Your task to perform on an android device: snooze an email in the gmail app Image 0: 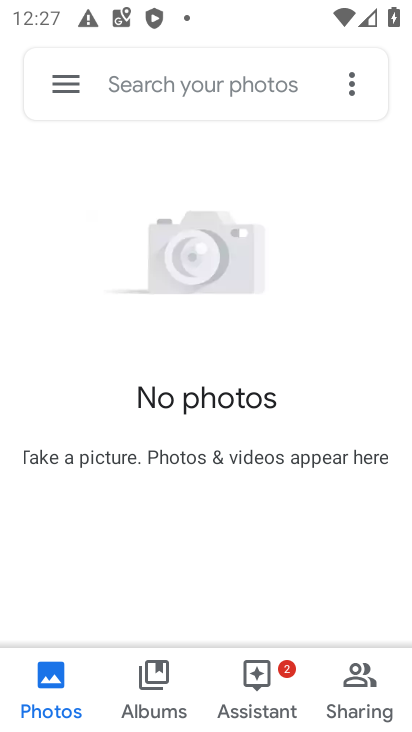
Step 0: click (69, 79)
Your task to perform on an android device: snooze an email in the gmail app Image 1: 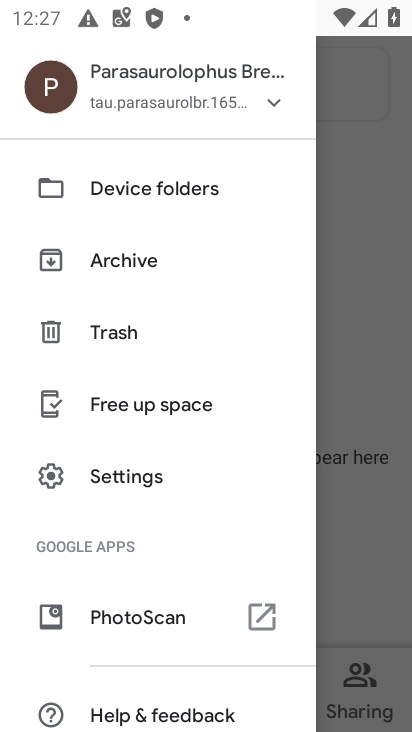
Step 1: press home button
Your task to perform on an android device: snooze an email in the gmail app Image 2: 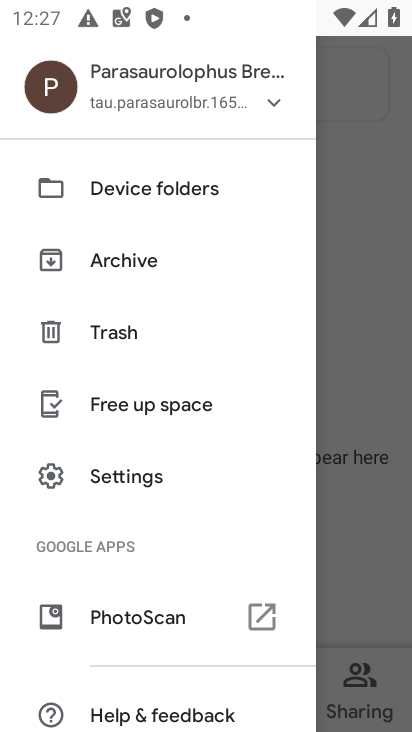
Step 2: press home button
Your task to perform on an android device: snooze an email in the gmail app Image 3: 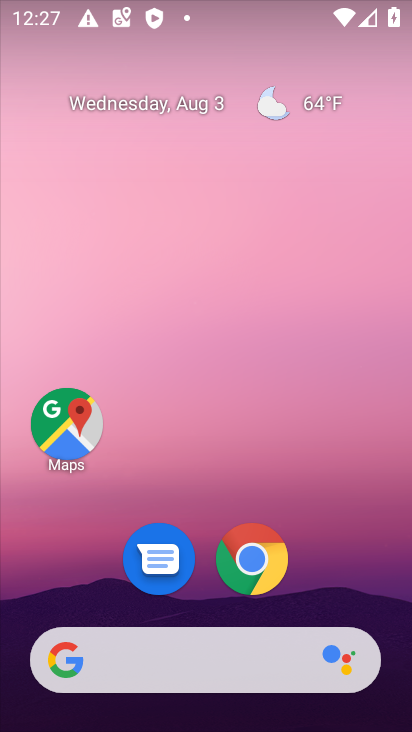
Step 3: drag from (196, 542) to (234, 36)
Your task to perform on an android device: snooze an email in the gmail app Image 4: 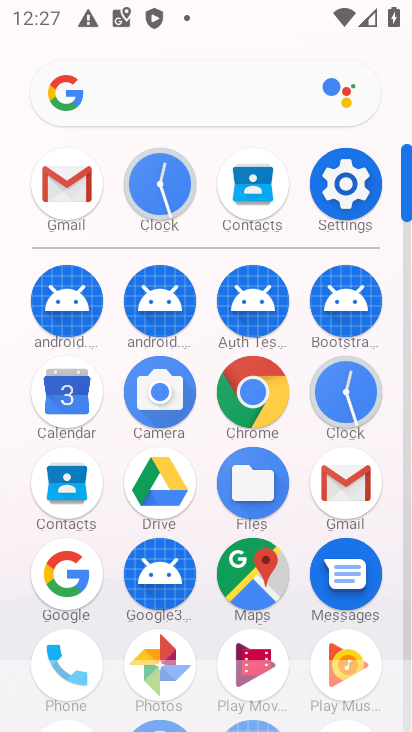
Step 4: click (345, 484)
Your task to perform on an android device: snooze an email in the gmail app Image 5: 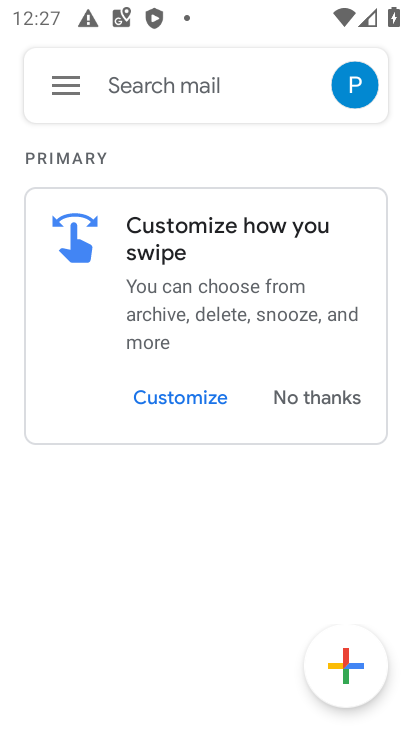
Step 5: task complete